Your task to perform on an android device: change your default location settings in chrome Image 0: 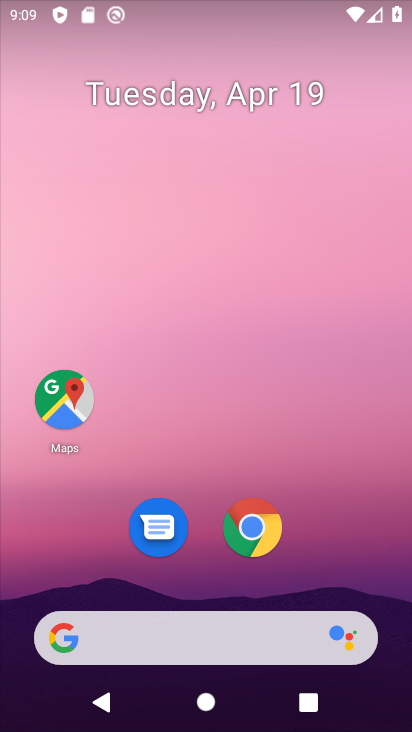
Step 0: drag from (254, 671) to (232, 11)
Your task to perform on an android device: change your default location settings in chrome Image 1: 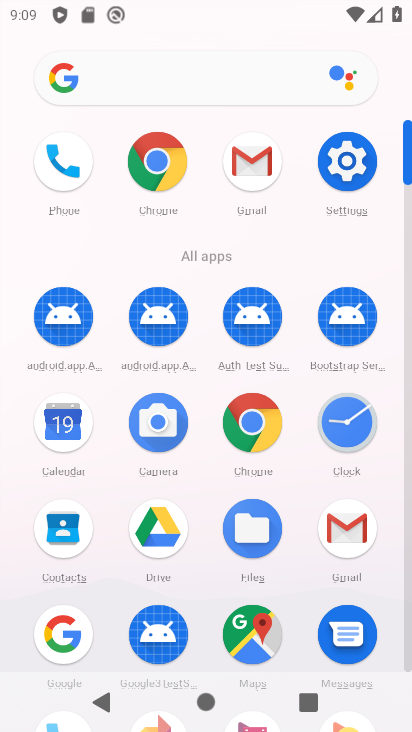
Step 1: click (169, 181)
Your task to perform on an android device: change your default location settings in chrome Image 2: 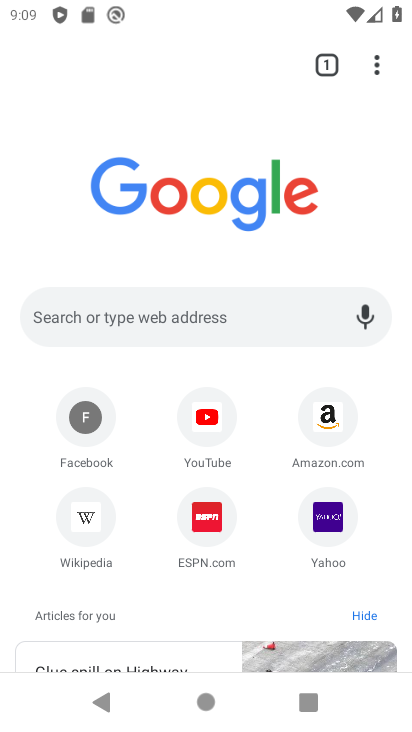
Step 2: click (378, 58)
Your task to perform on an android device: change your default location settings in chrome Image 3: 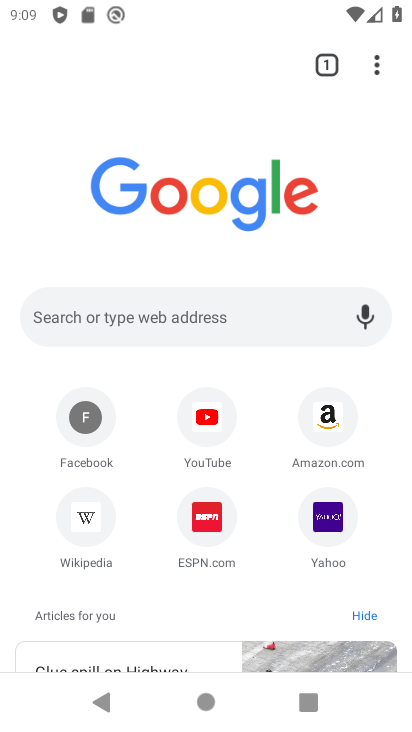
Step 3: click (378, 58)
Your task to perform on an android device: change your default location settings in chrome Image 4: 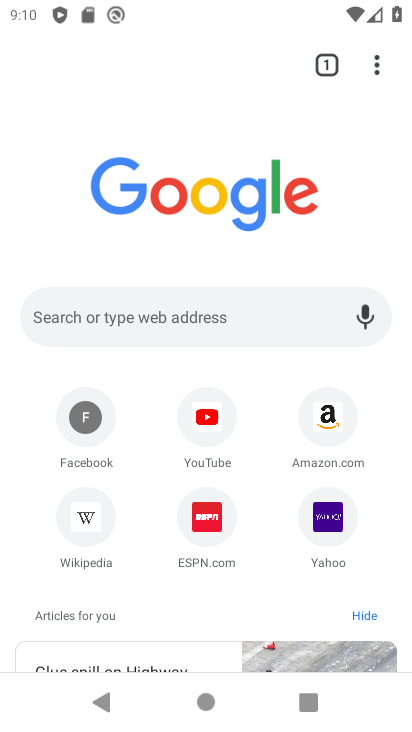
Step 4: click (378, 58)
Your task to perform on an android device: change your default location settings in chrome Image 5: 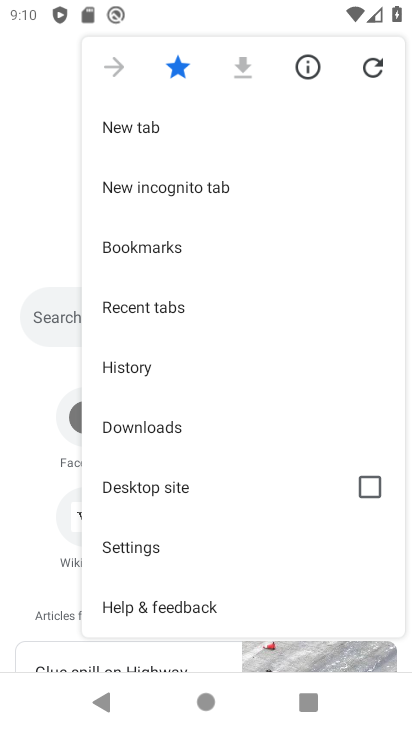
Step 5: click (139, 549)
Your task to perform on an android device: change your default location settings in chrome Image 6: 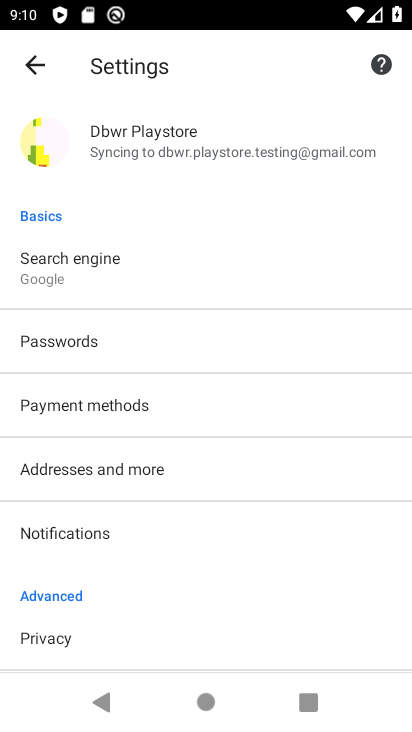
Step 6: drag from (139, 549) to (169, 293)
Your task to perform on an android device: change your default location settings in chrome Image 7: 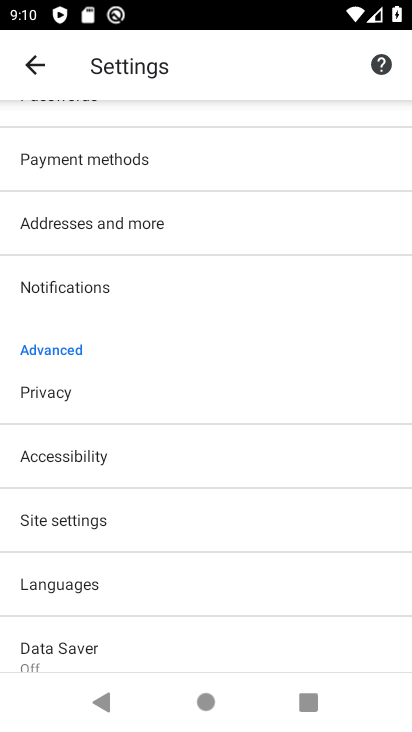
Step 7: click (38, 523)
Your task to perform on an android device: change your default location settings in chrome Image 8: 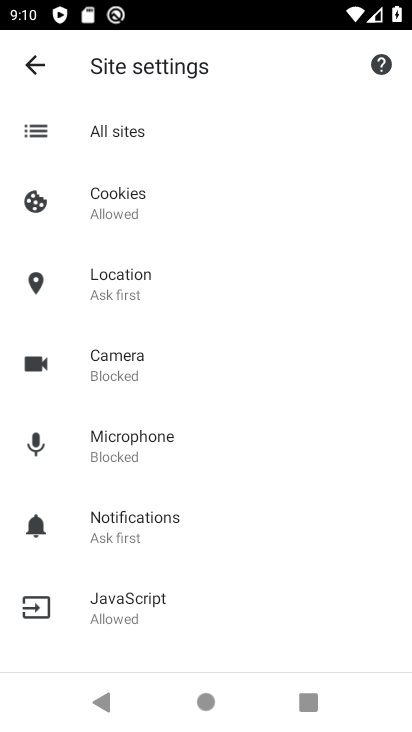
Step 8: click (142, 290)
Your task to perform on an android device: change your default location settings in chrome Image 9: 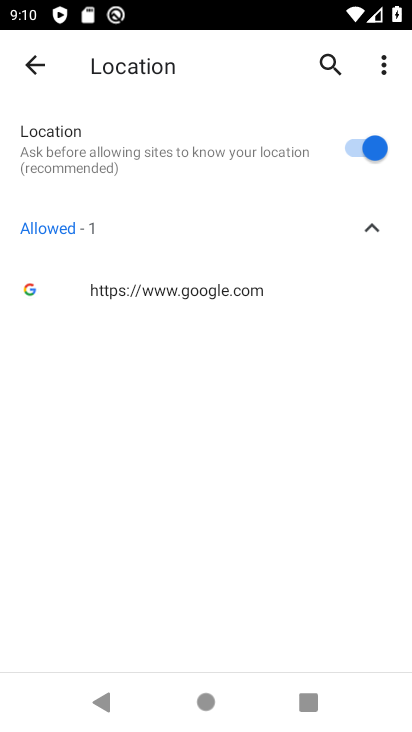
Step 9: click (320, 143)
Your task to perform on an android device: change your default location settings in chrome Image 10: 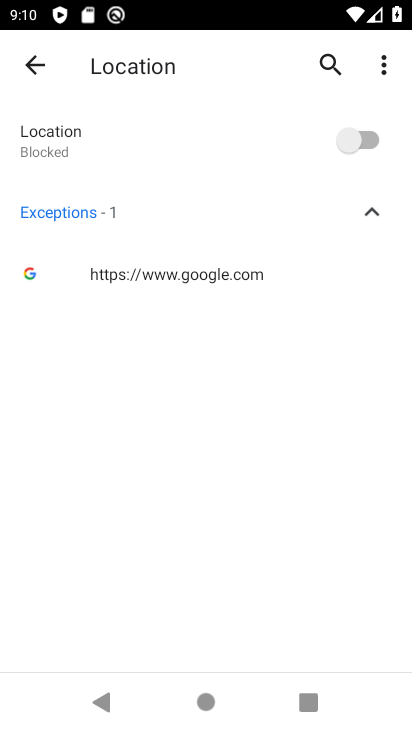
Step 10: click (320, 143)
Your task to perform on an android device: change your default location settings in chrome Image 11: 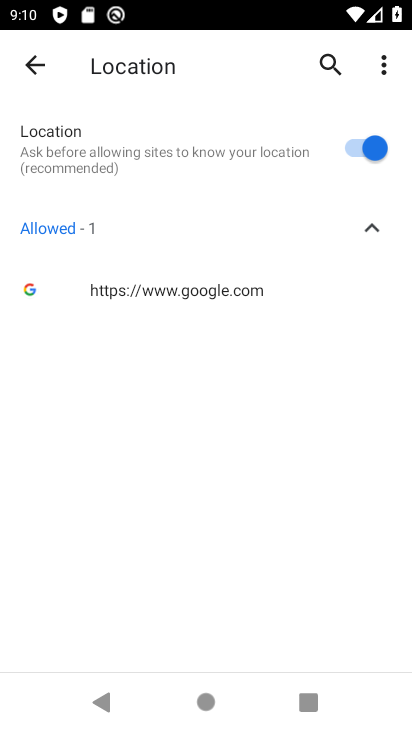
Step 11: task complete